Your task to perform on an android device: Search for vegetarian restaurants on Maps Image 0: 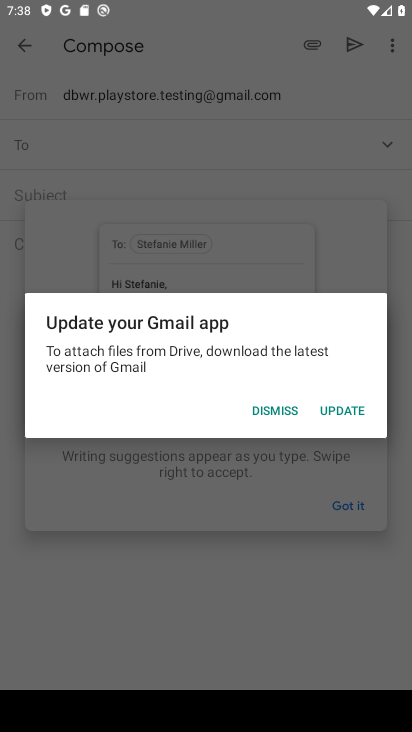
Step 0: press home button
Your task to perform on an android device: Search for vegetarian restaurants on Maps Image 1: 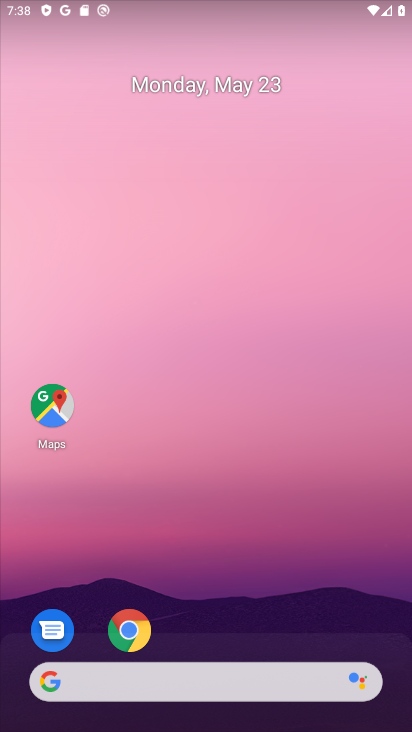
Step 1: click (54, 405)
Your task to perform on an android device: Search for vegetarian restaurants on Maps Image 2: 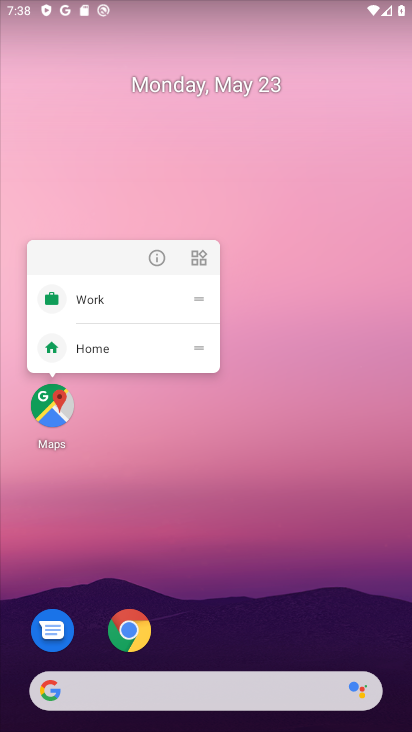
Step 2: click (208, 498)
Your task to perform on an android device: Search for vegetarian restaurants on Maps Image 3: 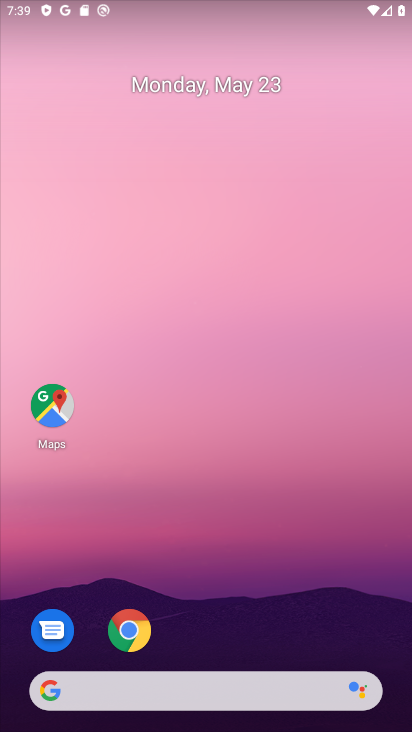
Step 3: click (382, 617)
Your task to perform on an android device: Search for vegetarian restaurants on Maps Image 4: 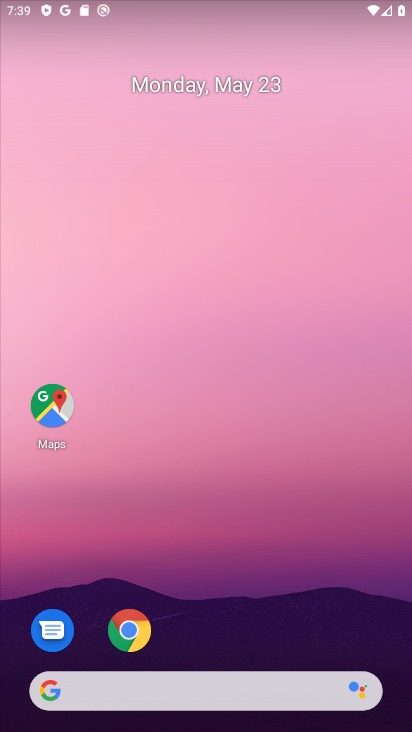
Step 4: drag from (331, 587) to (300, 25)
Your task to perform on an android device: Search for vegetarian restaurants on Maps Image 5: 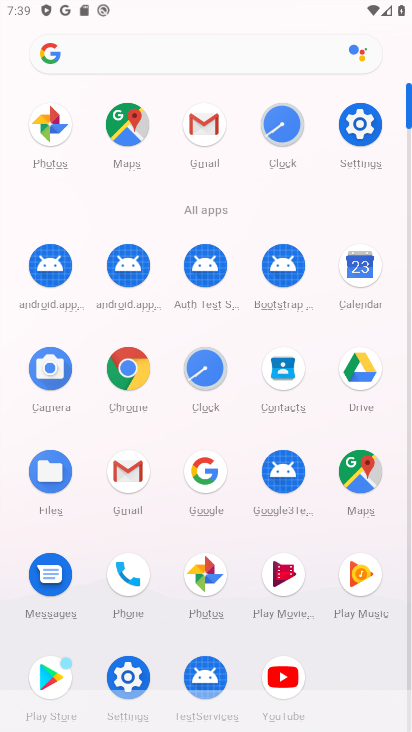
Step 5: click (128, 126)
Your task to perform on an android device: Search for vegetarian restaurants on Maps Image 6: 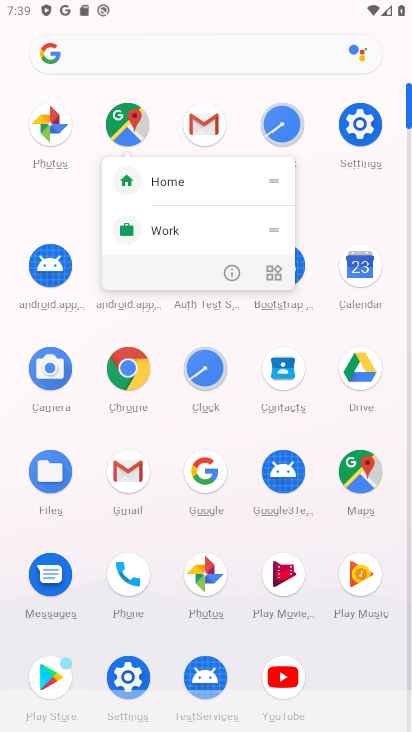
Step 6: click (132, 131)
Your task to perform on an android device: Search for vegetarian restaurants on Maps Image 7: 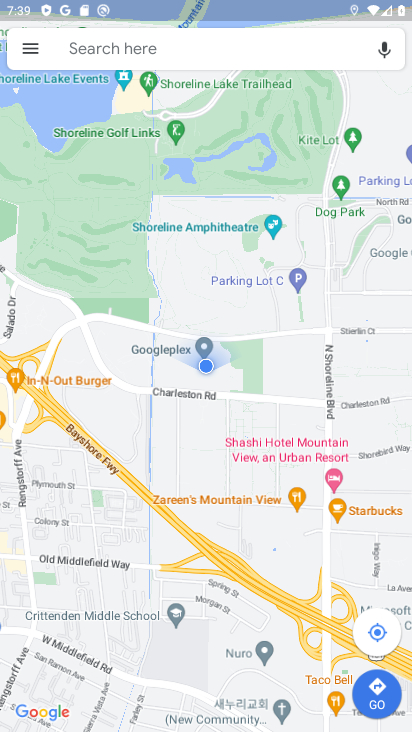
Step 7: click (211, 45)
Your task to perform on an android device: Search for vegetarian restaurants on Maps Image 8: 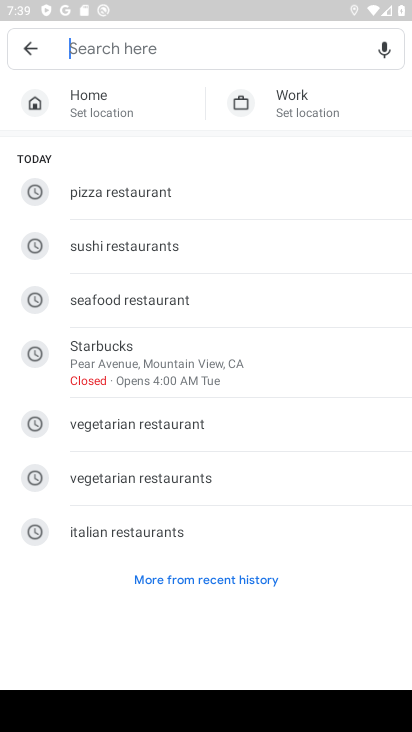
Step 8: click (157, 473)
Your task to perform on an android device: Search for vegetarian restaurants on Maps Image 9: 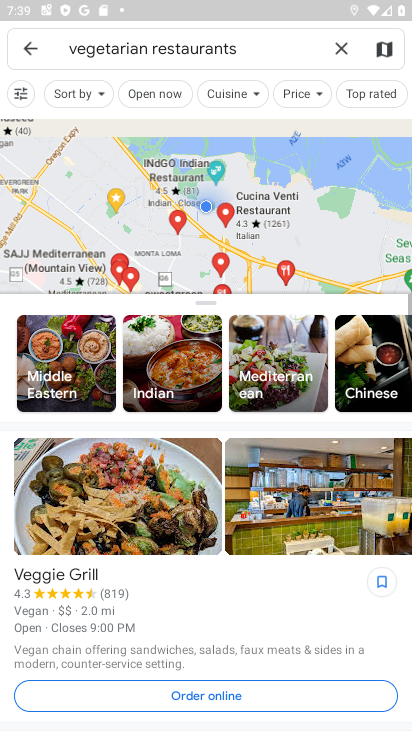
Step 9: task complete